Your task to perform on an android device: What's the weather? Image 0: 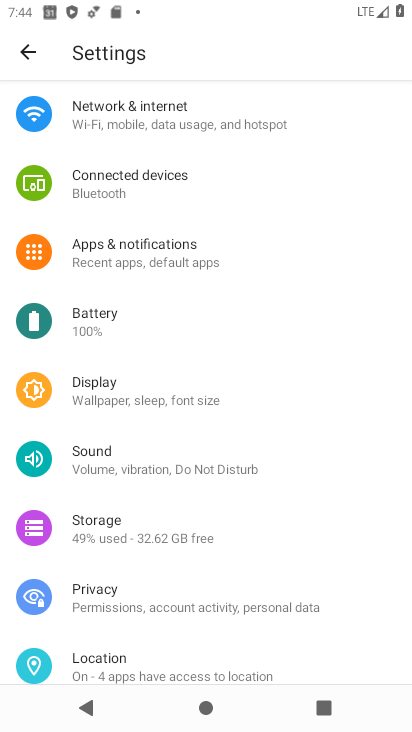
Step 0: press home button
Your task to perform on an android device: What's the weather? Image 1: 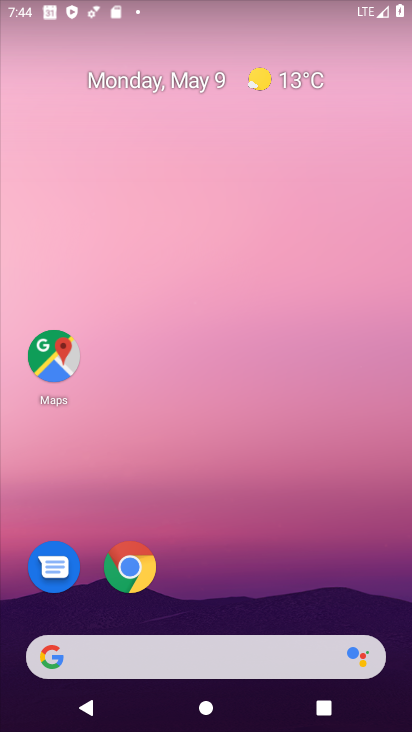
Step 1: click (288, 75)
Your task to perform on an android device: What's the weather? Image 2: 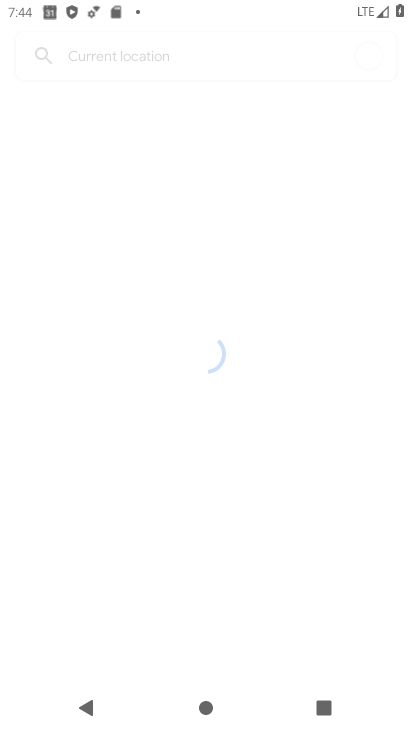
Step 2: click (288, 75)
Your task to perform on an android device: What's the weather? Image 3: 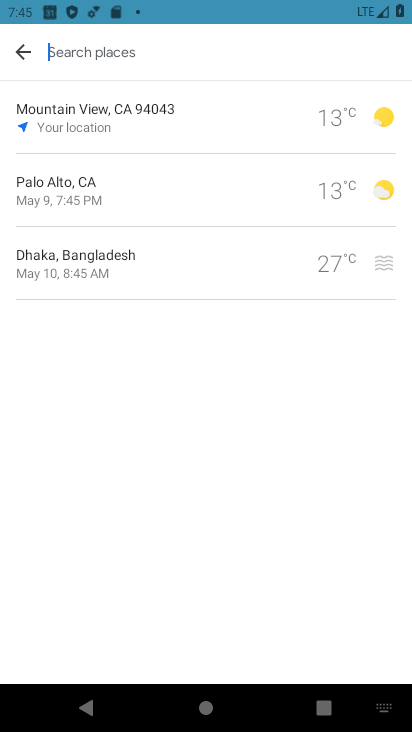
Step 3: click (11, 47)
Your task to perform on an android device: What's the weather? Image 4: 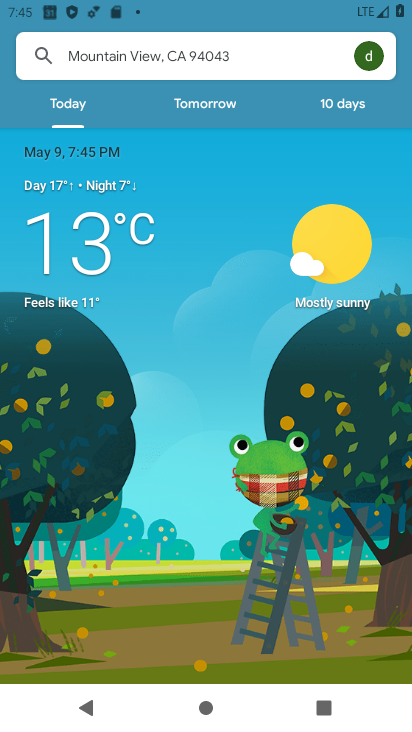
Step 4: task complete